Your task to perform on an android device: find snoozed emails in the gmail app Image 0: 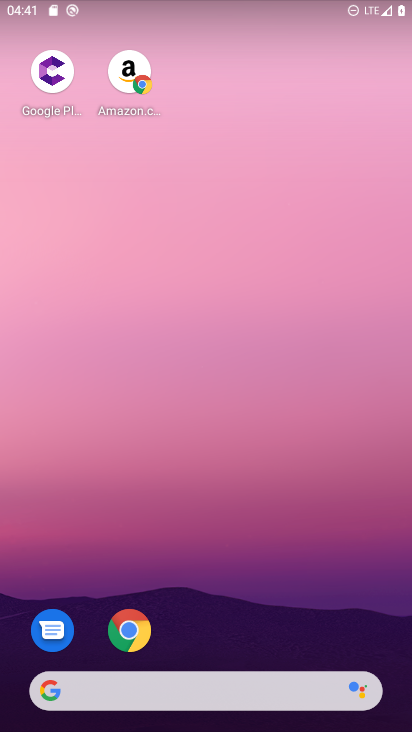
Step 0: drag from (344, 634) to (312, 44)
Your task to perform on an android device: find snoozed emails in the gmail app Image 1: 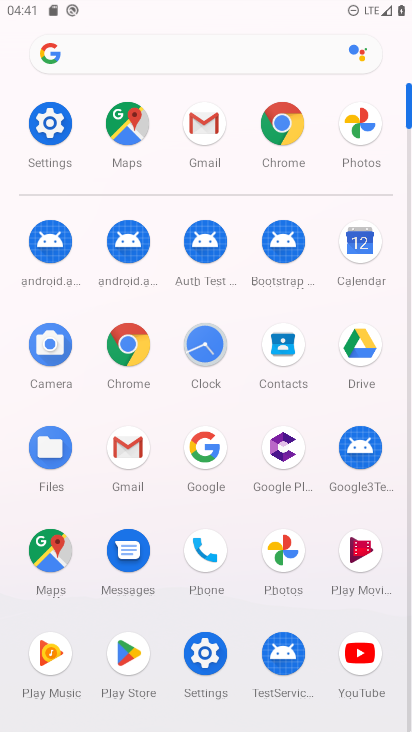
Step 1: click (119, 453)
Your task to perform on an android device: find snoozed emails in the gmail app Image 2: 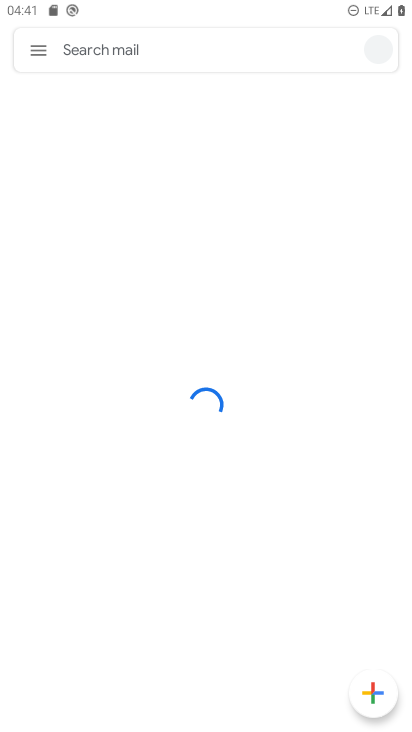
Step 2: click (27, 48)
Your task to perform on an android device: find snoozed emails in the gmail app Image 3: 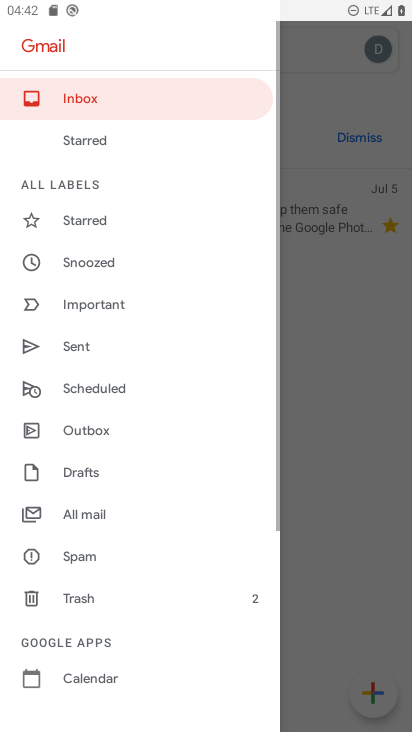
Step 3: click (110, 264)
Your task to perform on an android device: find snoozed emails in the gmail app Image 4: 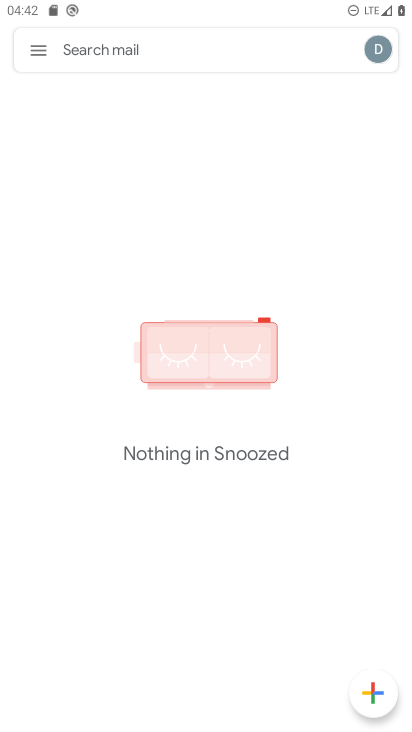
Step 4: task complete